Your task to perform on an android device: Search for a custom made wallet Image 0: 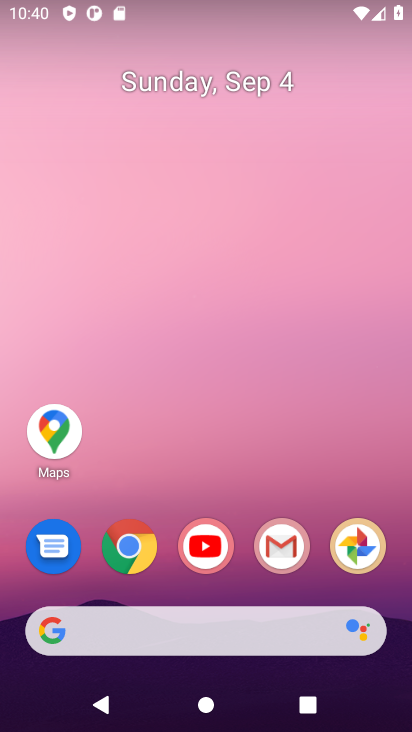
Step 0: click (142, 554)
Your task to perform on an android device: Search for a custom made wallet Image 1: 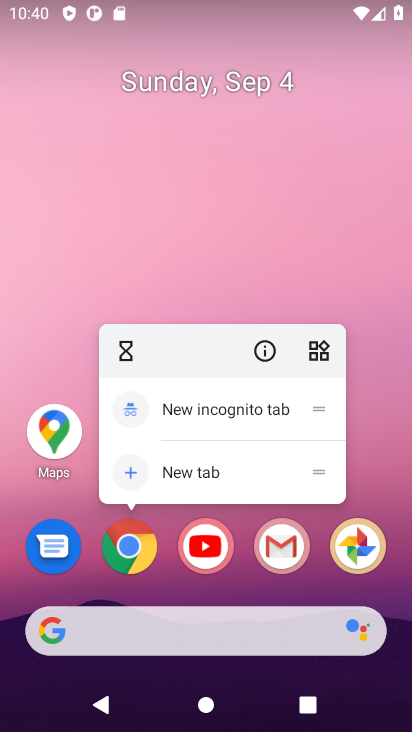
Step 1: click (134, 549)
Your task to perform on an android device: Search for a custom made wallet Image 2: 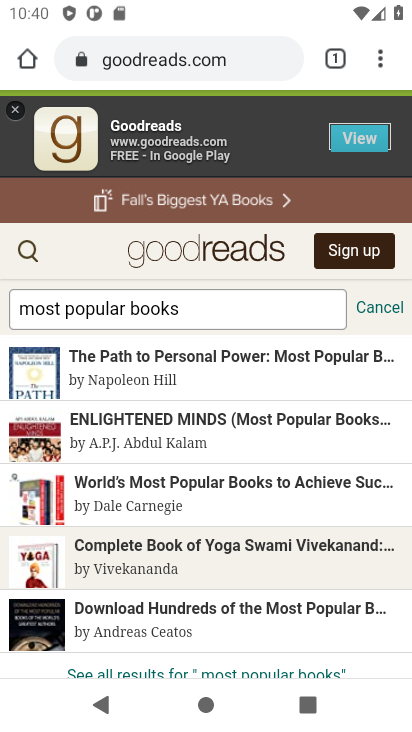
Step 2: click (163, 64)
Your task to perform on an android device: Search for a custom made wallet Image 3: 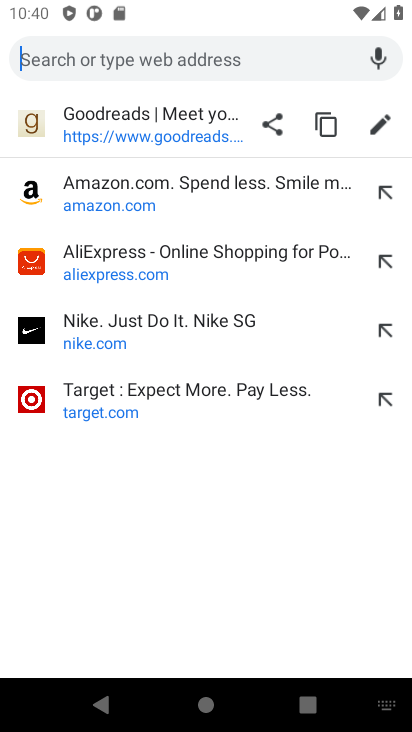
Step 3: type "custom made wallet"
Your task to perform on an android device: Search for a custom made wallet Image 4: 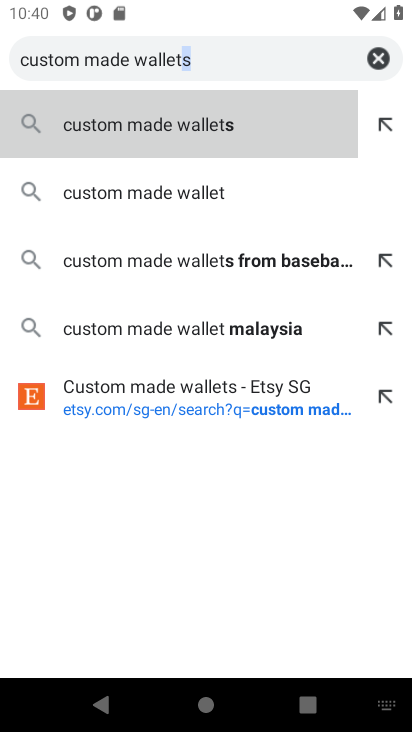
Step 4: click (197, 126)
Your task to perform on an android device: Search for a custom made wallet Image 5: 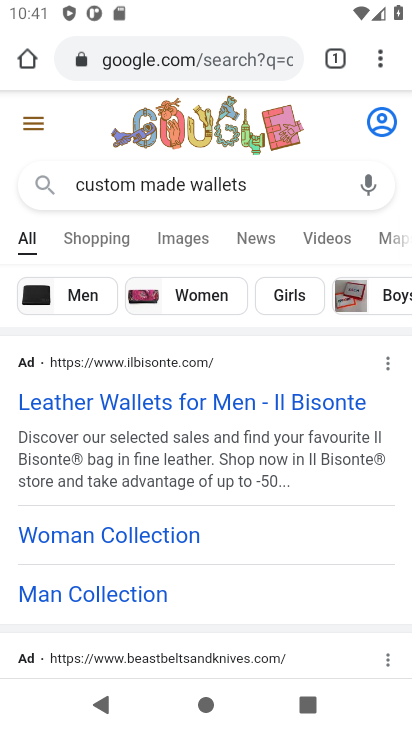
Step 5: drag from (226, 507) to (231, 268)
Your task to perform on an android device: Search for a custom made wallet Image 6: 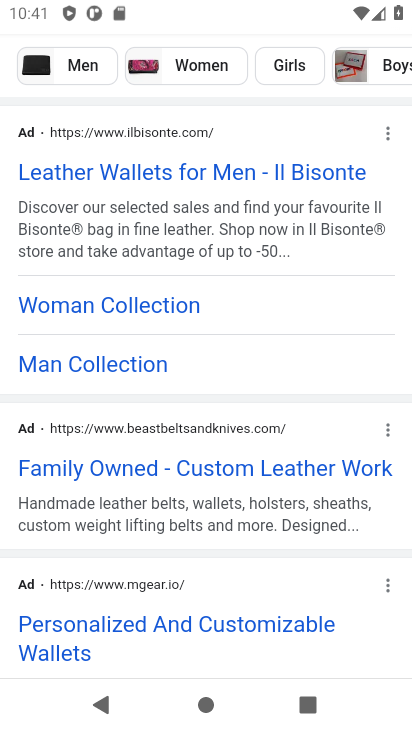
Step 6: drag from (201, 455) to (206, 259)
Your task to perform on an android device: Search for a custom made wallet Image 7: 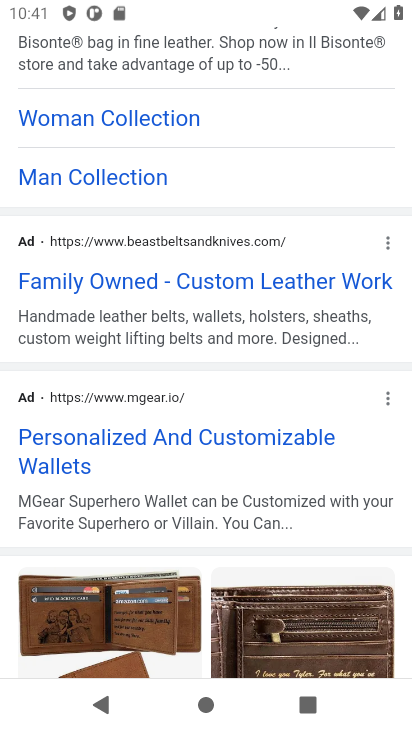
Step 7: drag from (194, 454) to (193, 244)
Your task to perform on an android device: Search for a custom made wallet Image 8: 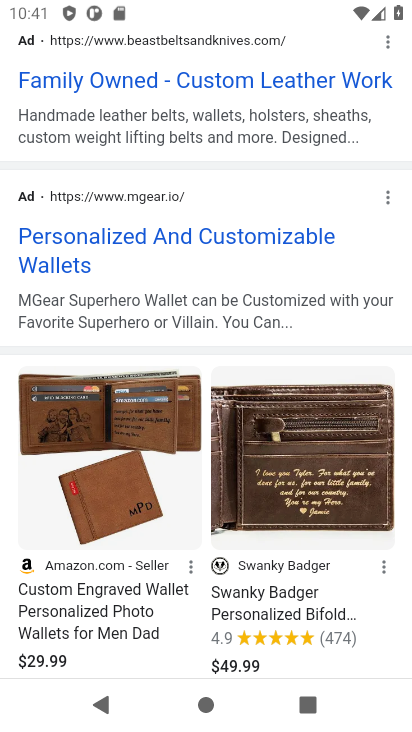
Step 8: drag from (178, 465) to (185, 309)
Your task to perform on an android device: Search for a custom made wallet Image 9: 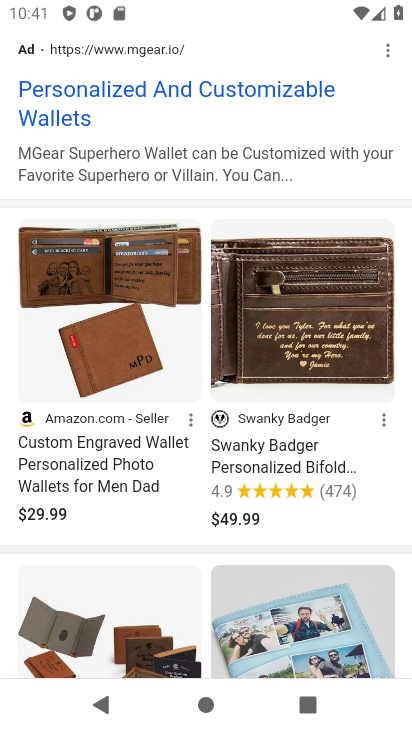
Step 9: drag from (162, 479) to (174, 223)
Your task to perform on an android device: Search for a custom made wallet Image 10: 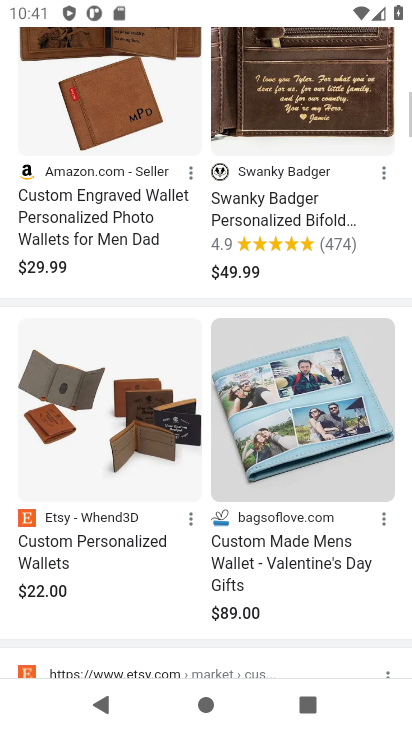
Step 10: drag from (136, 422) to (157, 270)
Your task to perform on an android device: Search for a custom made wallet Image 11: 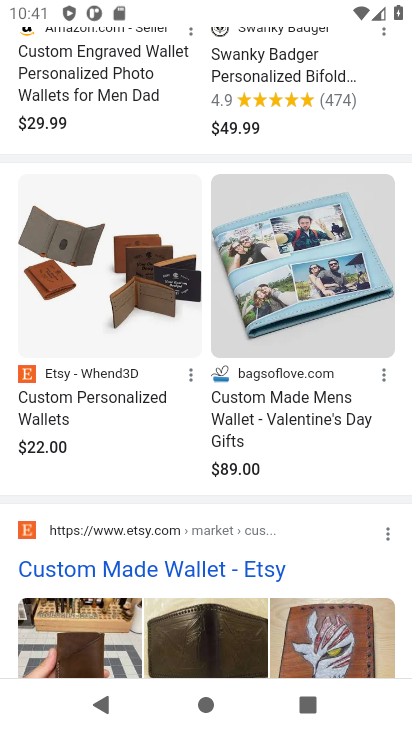
Step 11: click (308, 283)
Your task to perform on an android device: Search for a custom made wallet Image 12: 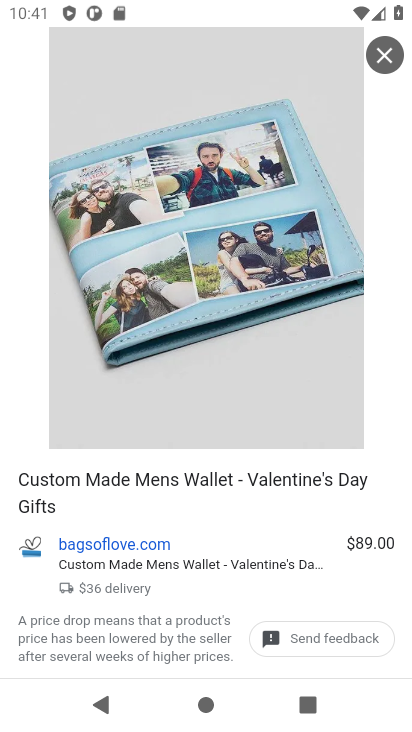
Step 12: task complete